Your task to perform on an android device: Open calendar and show me the fourth week of next month Image 0: 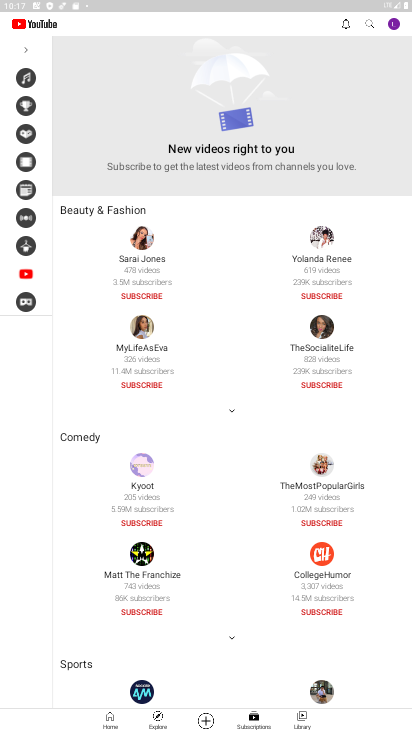
Step 0: press home button
Your task to perform on an android device: Open calendar and show me the fourth week of next month Image 1: 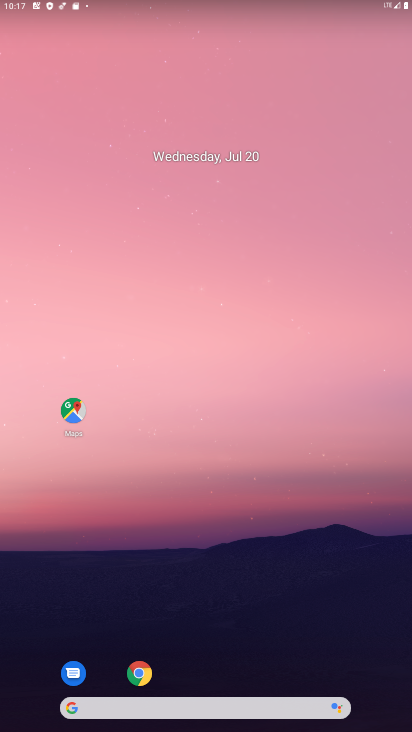
Step 1: drag from (204, 713) to (197, 329)
Your task to perform on an android device: Open calendar and show me the fourth week of next month Image 2: 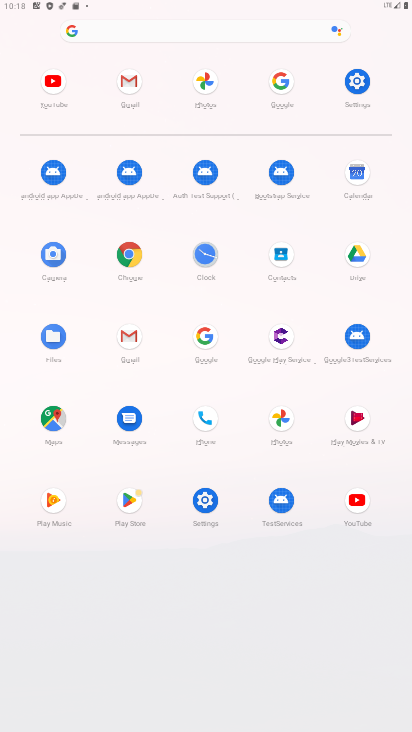
Step 2: click (358, 175)
Your task to perform on an android device: Open calendar and show me the fourth week of next month Image 3: 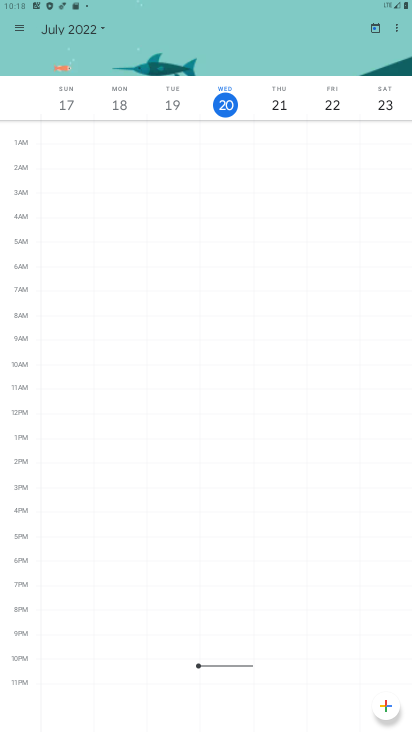
Step 3: click (383, 30)
Your task to perform on an android device: Open calendar and show me the fourth week of next month Image 4: 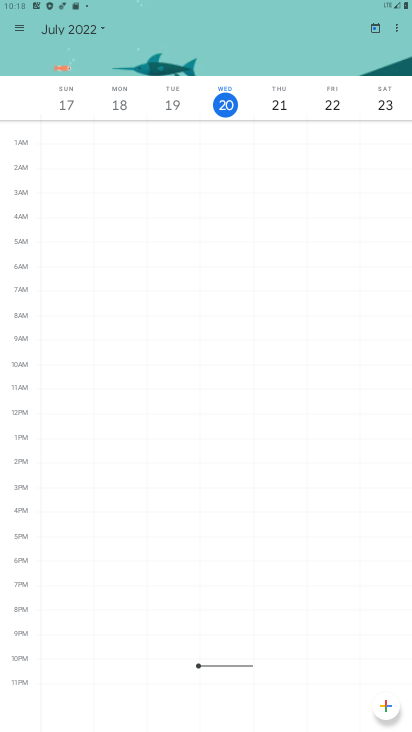
Step 4: click (376, 30)
Your task to perform on an android device: Open calendar and show me the fourth week of next month Image 5: 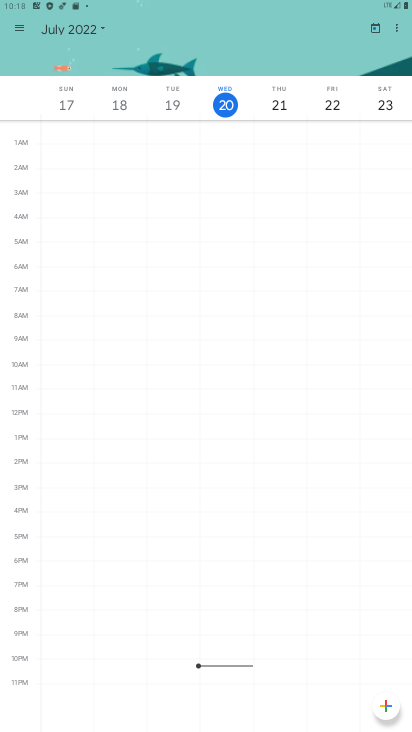
Step 5: click (106, 26)
Your task to perform on an android device: Open calendar and show me the fourth week of next month Image 6: 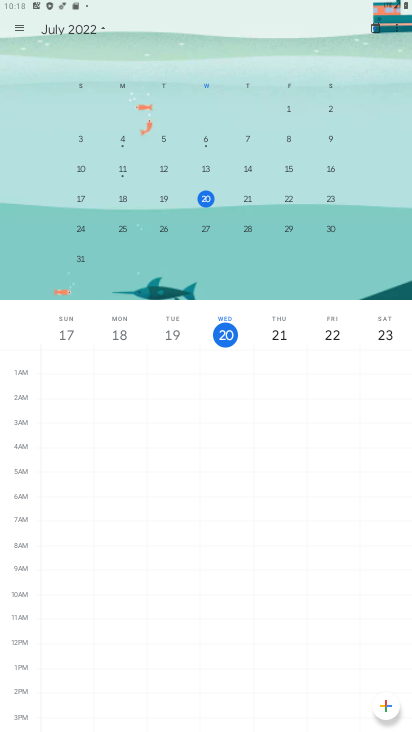
Step 6: drag from (328, 179) to (31, 226)
Your task to perform on an android device: Open calendar and show me the fourth week of next month Image 7: 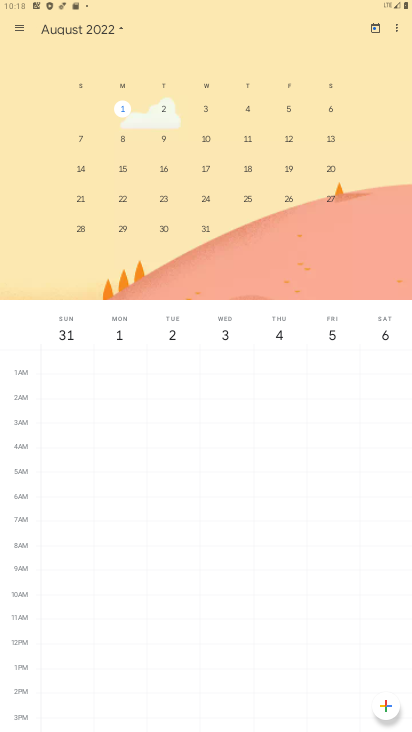
Step 7: click (125, 203)
Your task to perform on an android device: Open calendar and show me the fourth week of next month Image 8: 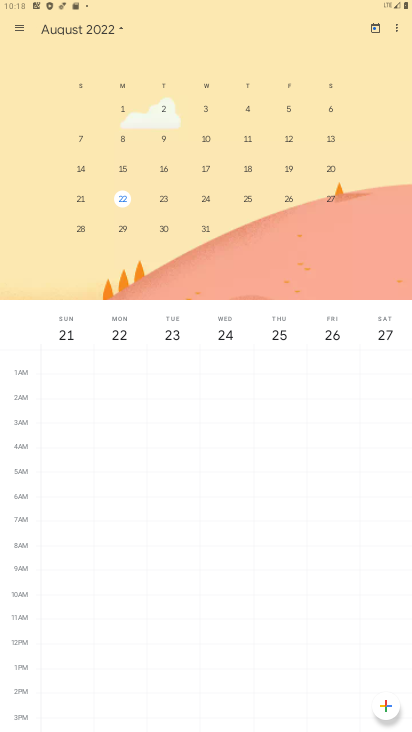
Step 8: click (24, 29)
Your task to perform on an android device: Open calendar and show me the fourth week of next month Image 9: 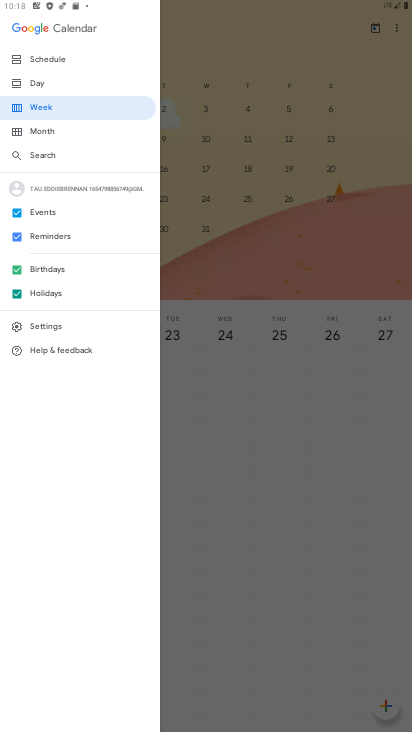
Step 9: click (64, 108)
Your task to perform on an android device: Open calendar and show me the fourth week of next month Image 10: 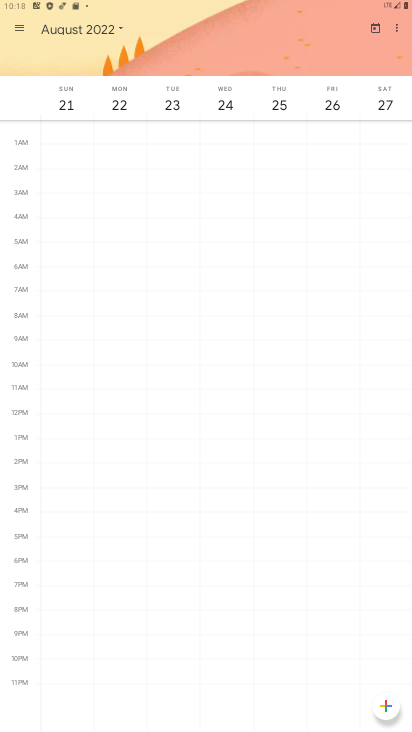
Step 10: task complete